Your task to perform on an android device: Search for Mexican restaurants on Maps Image 0: 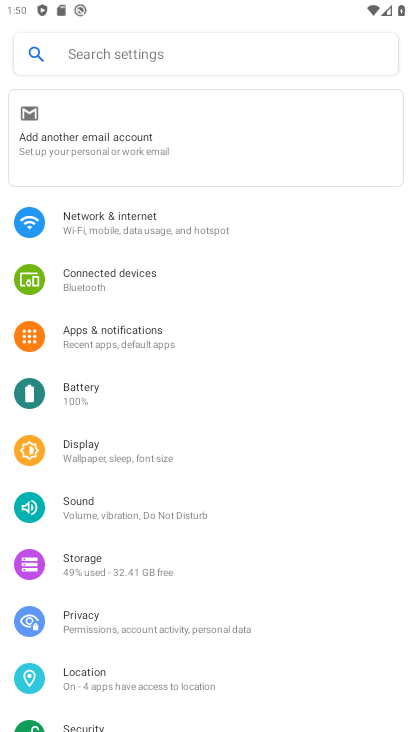
Step 0: press home button
Your task to perform on an android device: Search for Mexican restaurants on Maps Image 1: 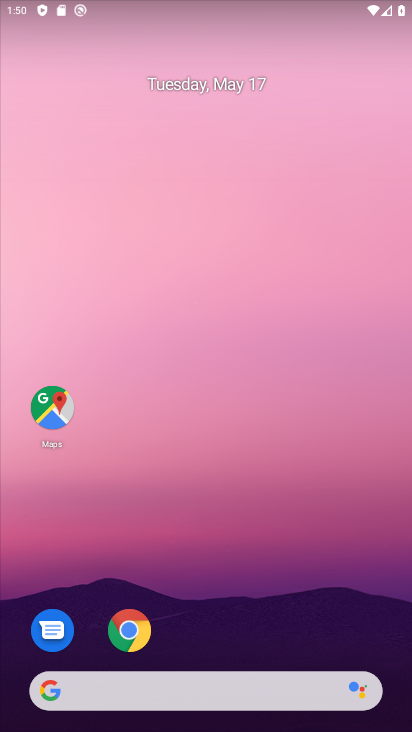
Step 1: drag from (371, 630) to (351, 20)
Your task to perform on an android device: Search for Mexican restaurants on Maps Image 2: 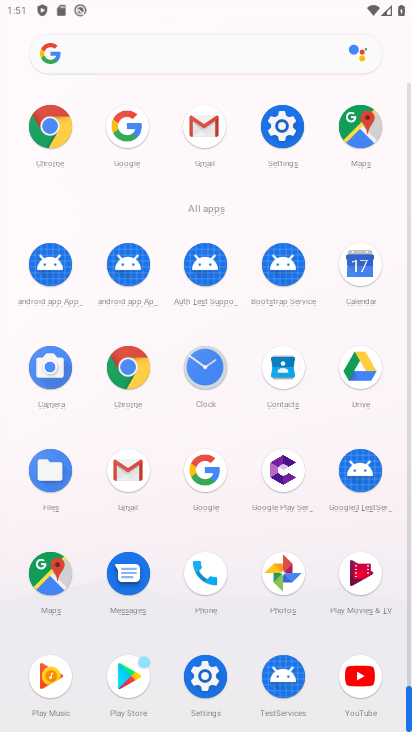
Step 2: click (54, 581)
Your task to perform on an android device: Search for Mexican restaurants on Maps Image 3: 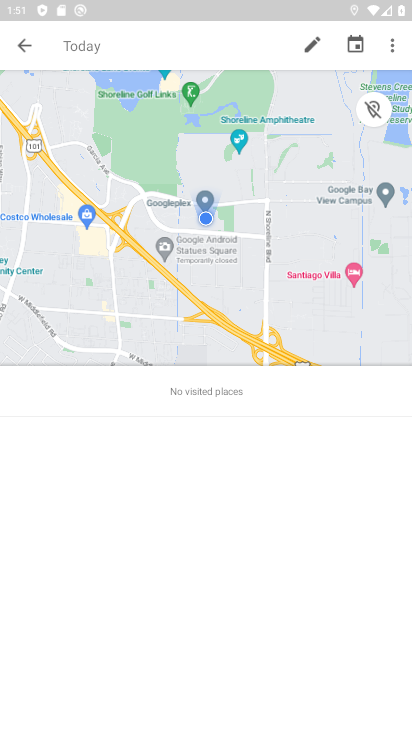
Step 3: click (164, 49)
Your task to perform on an android device: Search for Mexican restaurants on Maps Image 4: 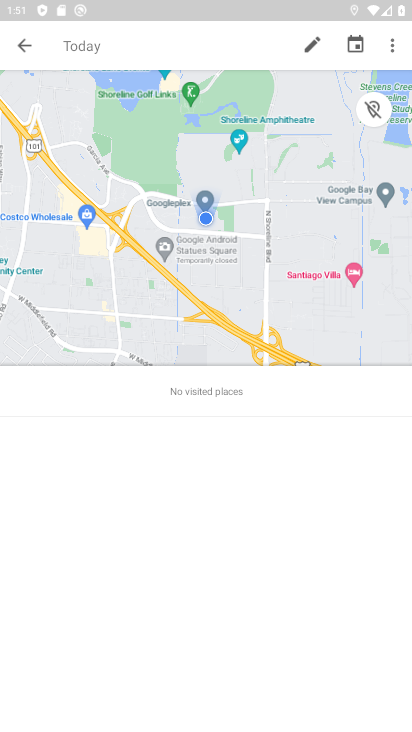
Step 4: click (161, 52)
Your task to perform on an android device: Search for Mexican restaurants on Maps Image 5: 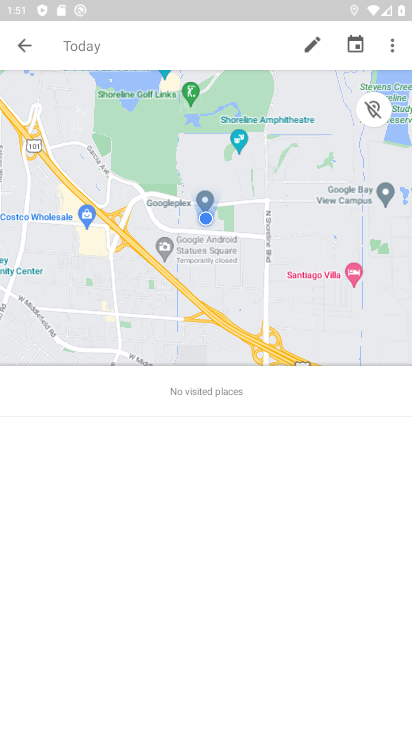
Step 5: click (19, 45)
Your task to perform on an android device: Search for Mexican restaurants on Maps Image 6: 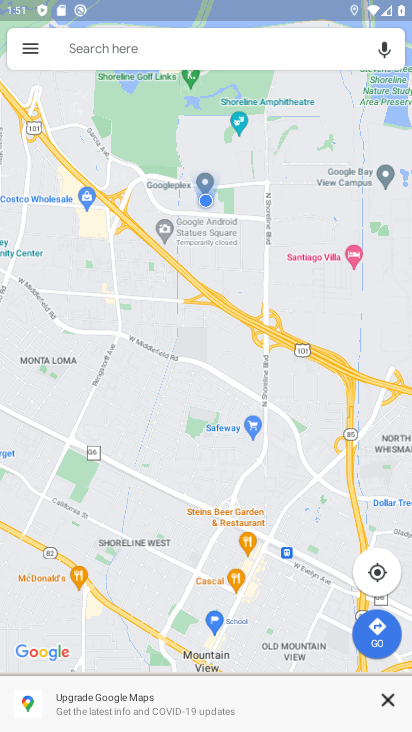
Step 6: click (121, 53)
Your task to perform on an android device: Search for Mexican restaurants on Maps Image 7: 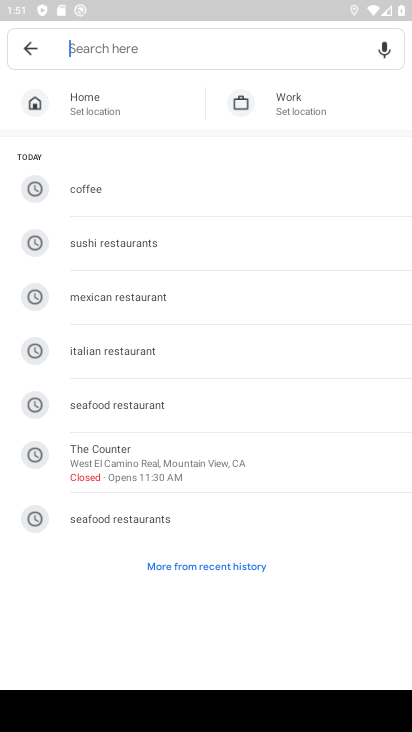
Step 7: click (191, 286)
Your task to perform on an android device: Search for Mexican restaurants on Maps Image 8: 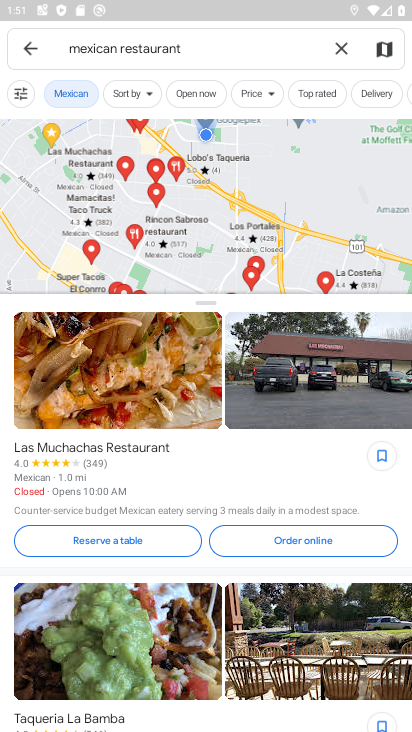
Step 8: task complete